Your task to perform on an android device: Search for sushi restaurants on Maps Image 0: 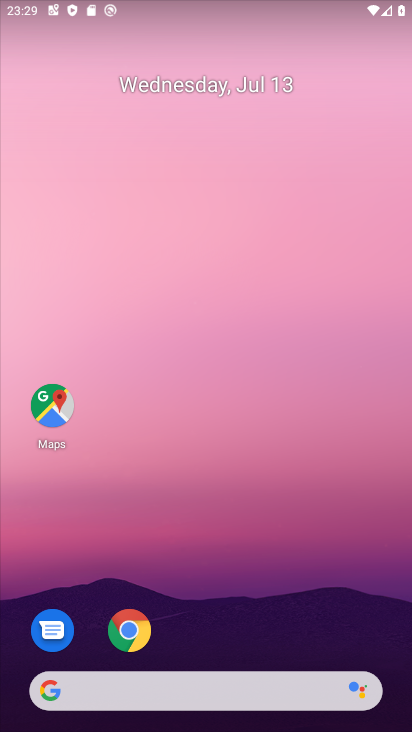
Step 0: drag from (329, 624) to (363, 216)
Your task to perform on an android device: Search for sushi restaurants on Maps Image 1: 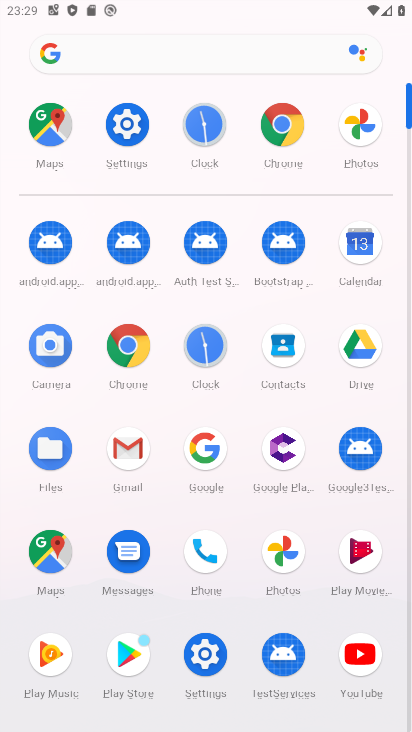
Step 1: click (51, 553)
Your task to perform on an android device: Search for sushi restaurants on Maps Image 2: 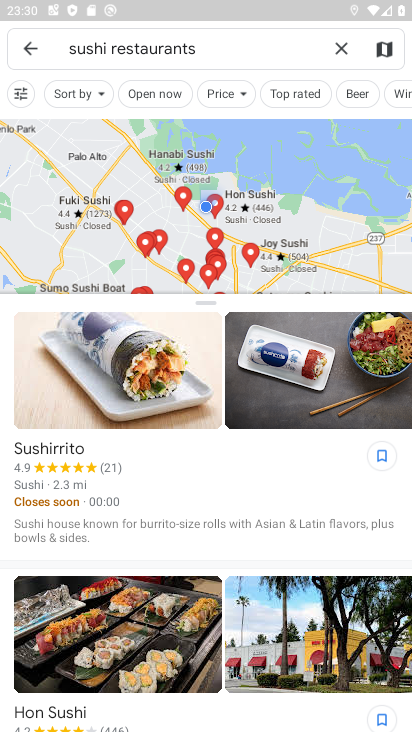
Step 2: task complete